Your task to perform on an android device: turn notification dots off Image 0: 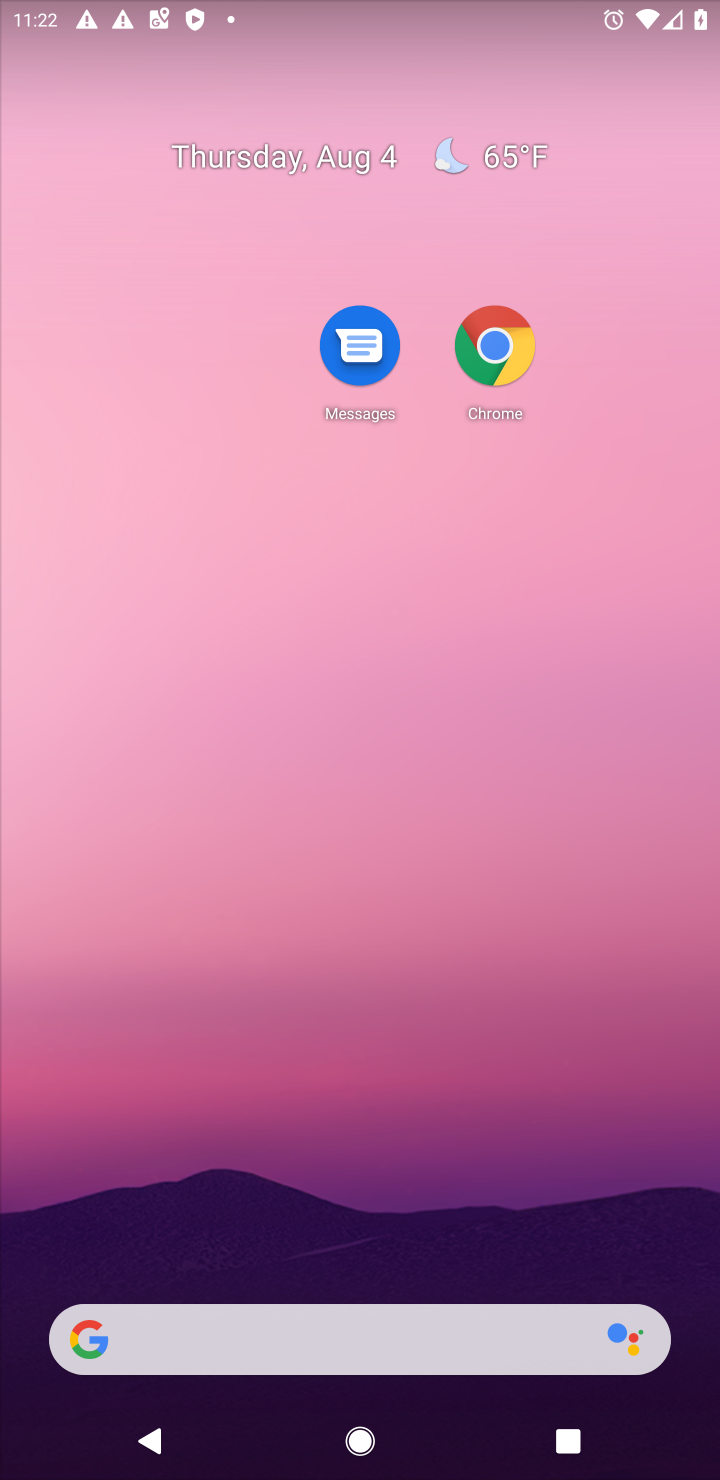
Step 0: drag from (292, 790) to (115, 38)
Your task to perform on an android device: turn notification dots off Image 1: 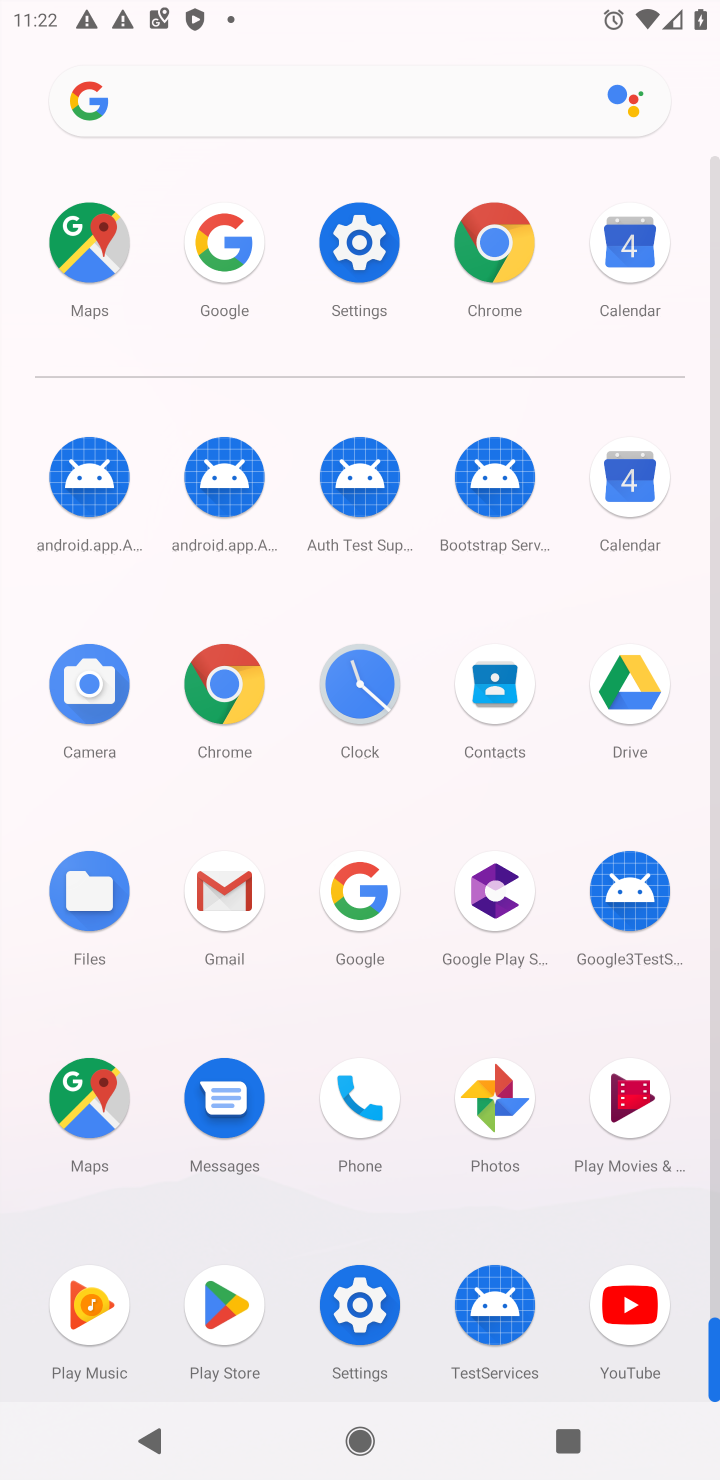
Step 1: click (384, 213)
Your task to perform on an android device: turn notification dots off Image 2: 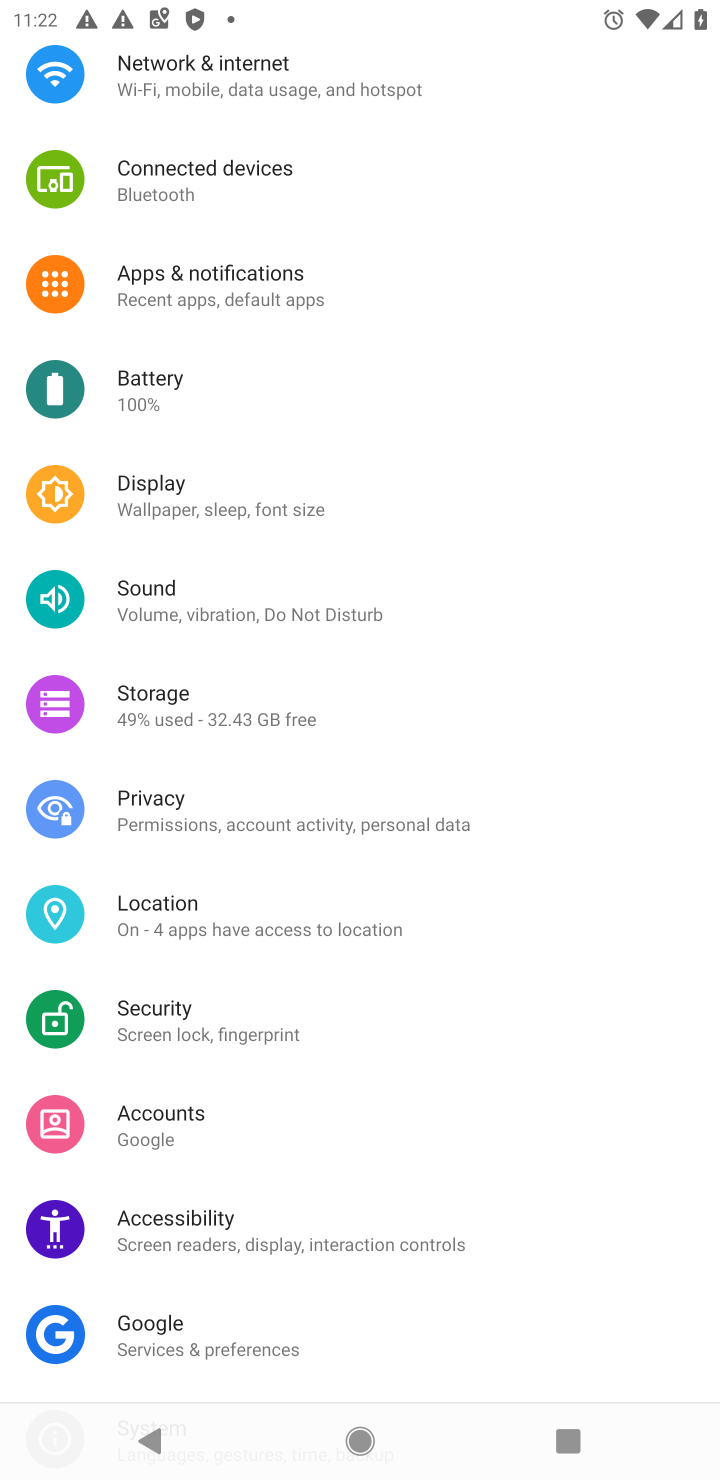
Step 2: click (206, 285)
Your task to perform on an android device: turn notification dots off Image 3: 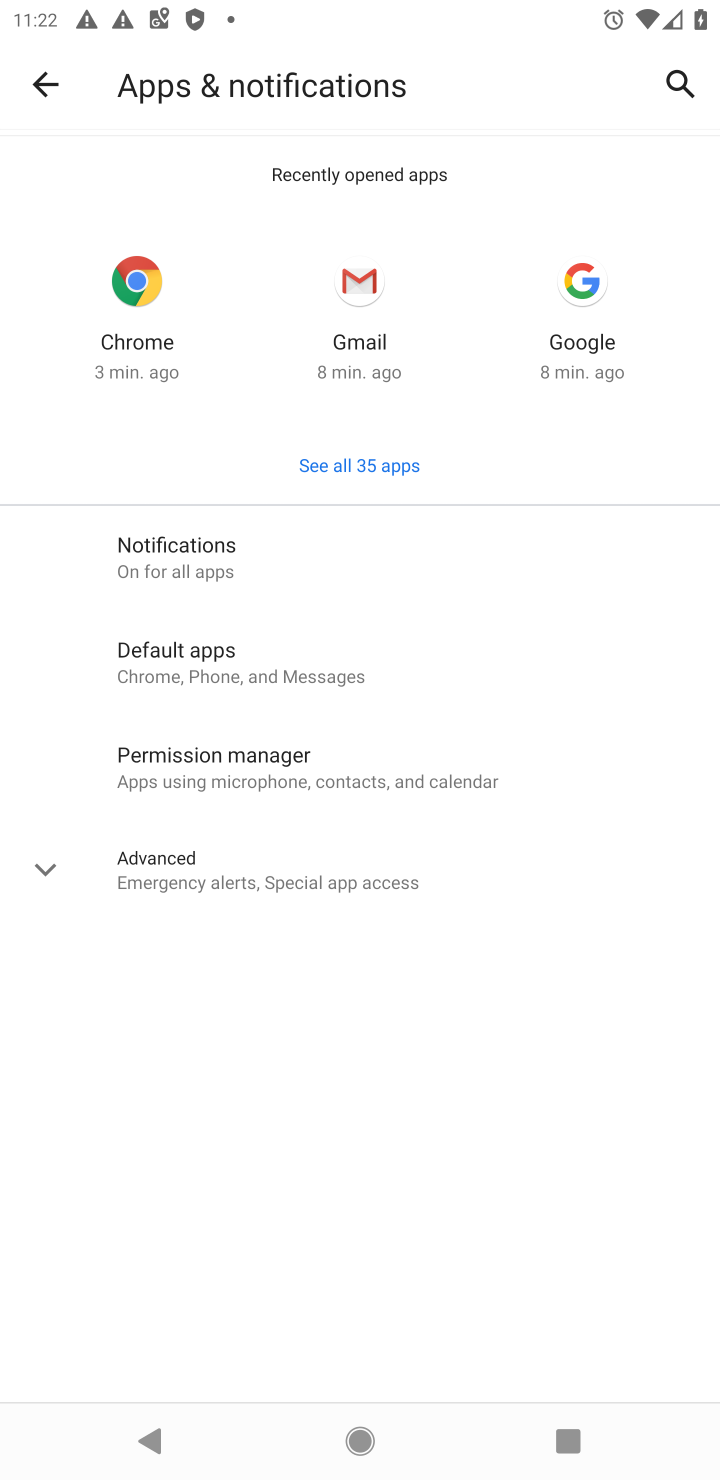
Step 3: click (153, 865)
Your task to perform on an android device: turn notification dots off Image 4: 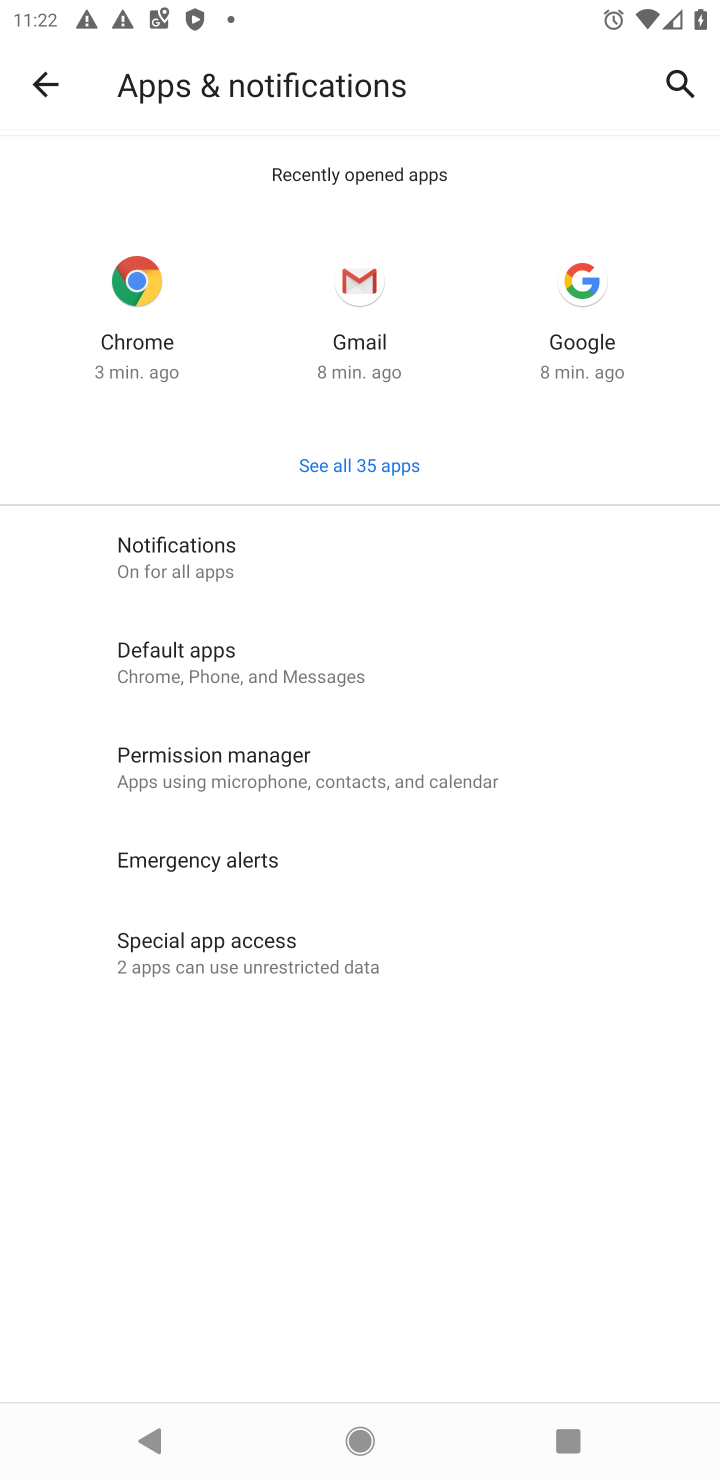
Step 4: click (171, 560)
Your task to perform on an android device: turn notification dots off Image 5: 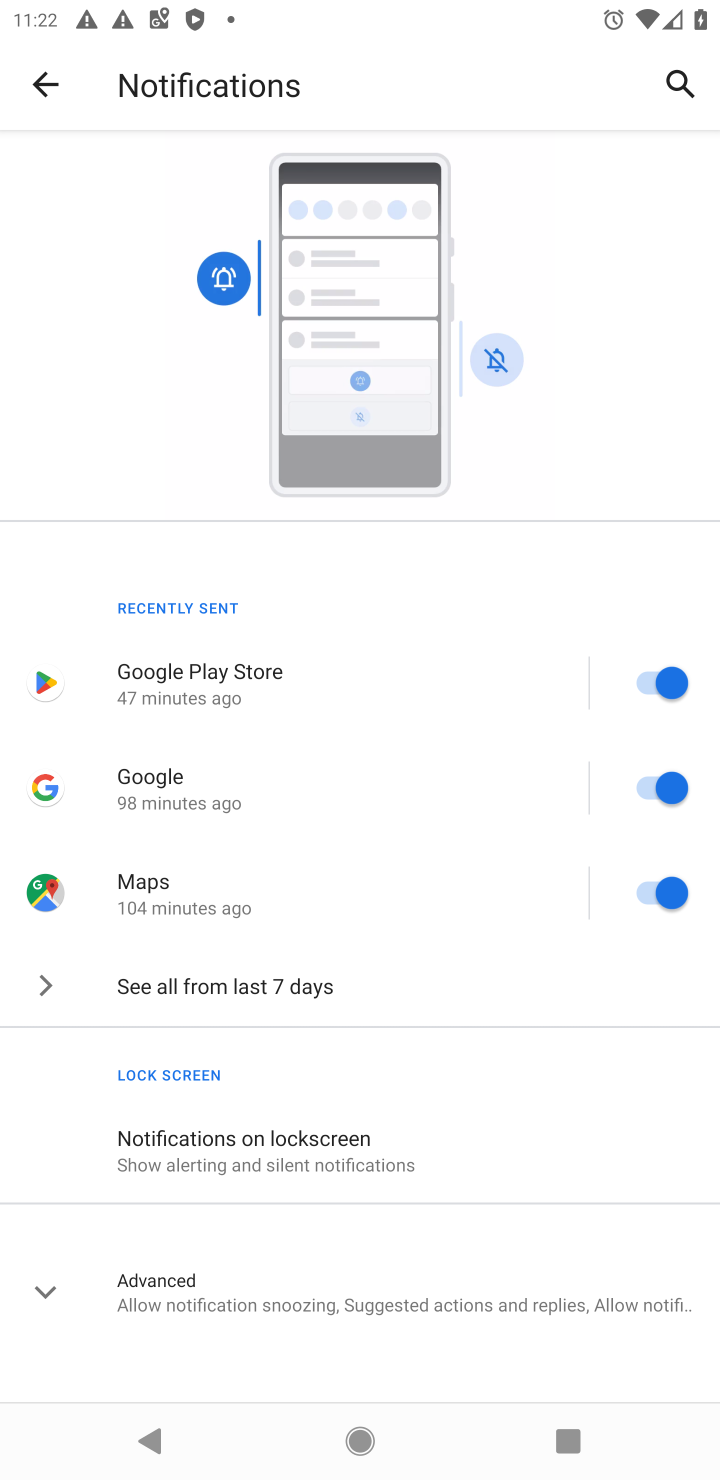
Step 5: click (163, 1305)
Your task to perform on an android device: turn notification dots off Image 6: 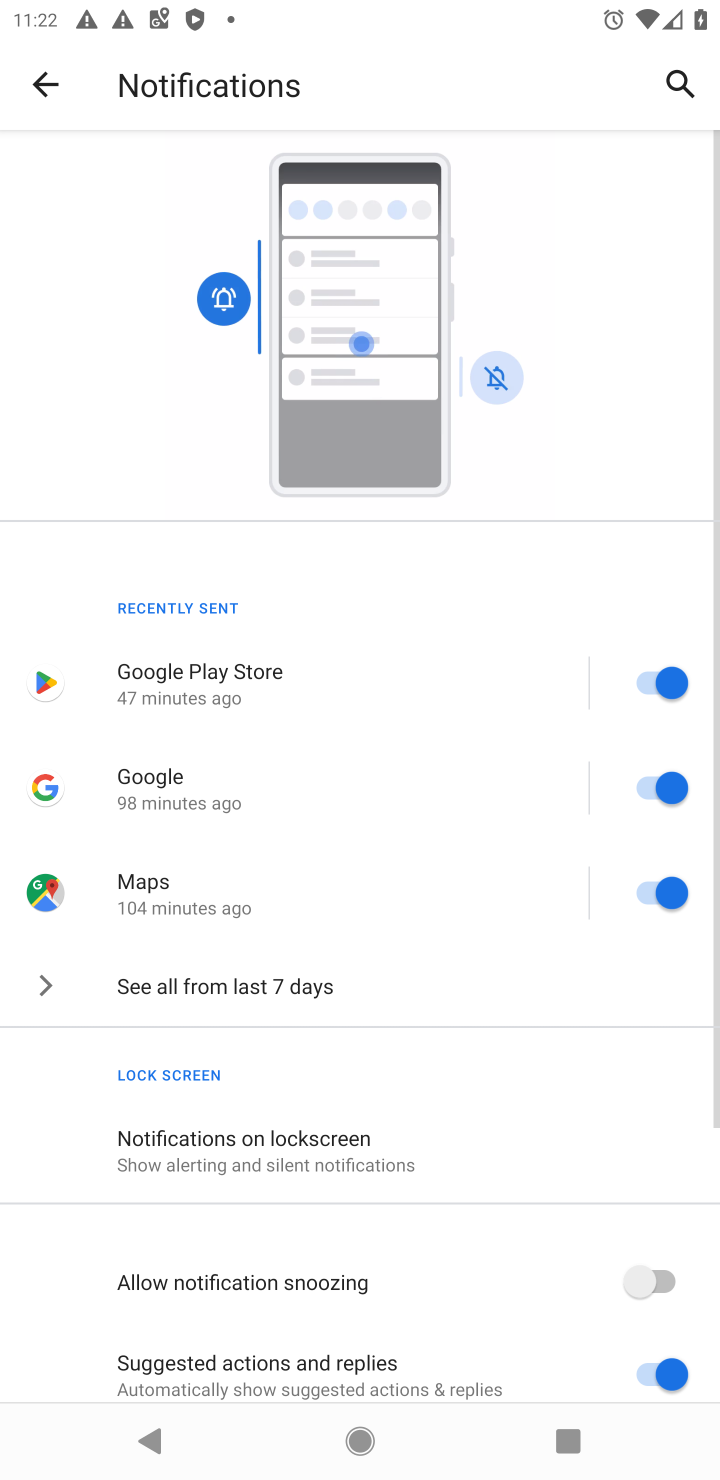
Step 6: task complete